Your task to perform on an android device: Open notification settings Image 0: 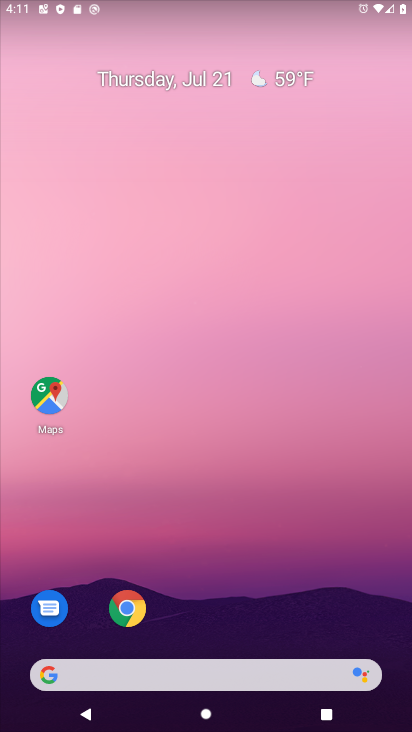
Step 0: drag from (196, 672) to (319, 4)
Your task to perform on an android device: Open notification settings Image 1: 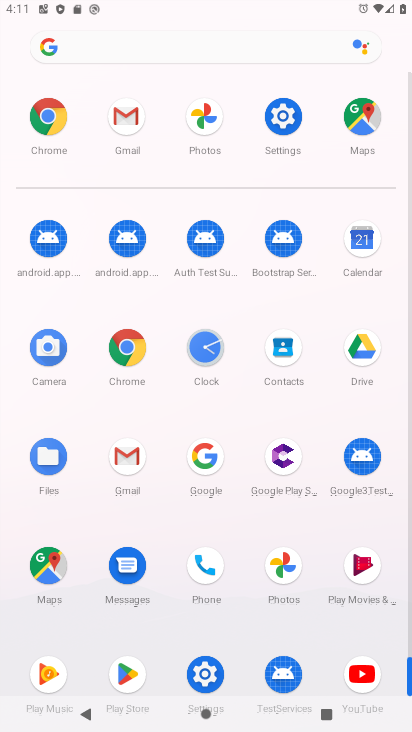
Step 1: click (277, 107)
Your task to perform on an android device: Open notification settings Image 2: 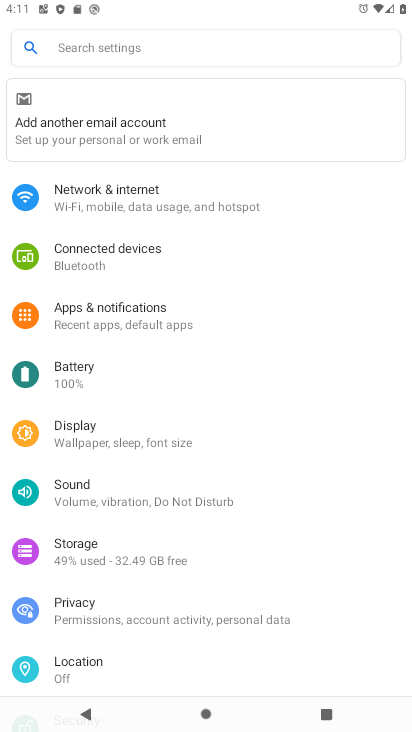
Step 2: click (131, 320)
Your task to perform on an android device: Open notification settings Image 3: 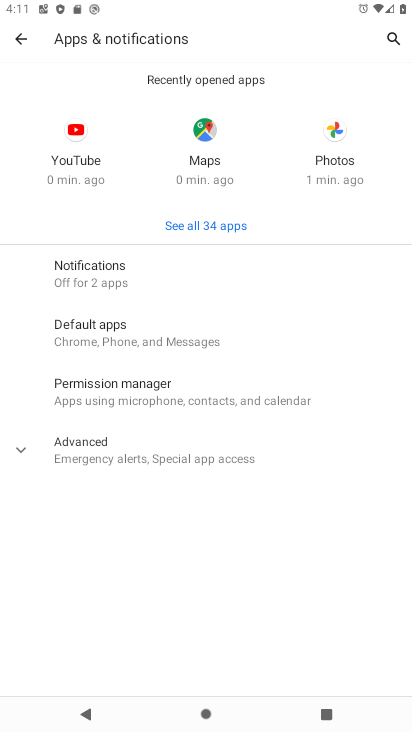
Step 3: click (114, 277)
Your task to perform on an android device: Open notification settings Image 4: 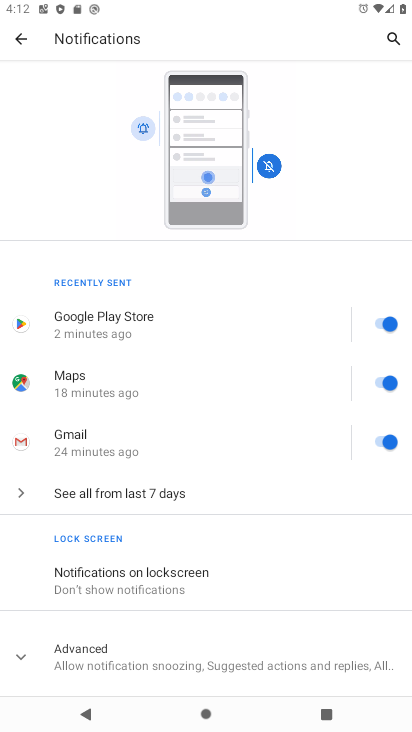
Step 4: click (379, 327)
Your task to perform on an android device: Open notification settings Image 5: 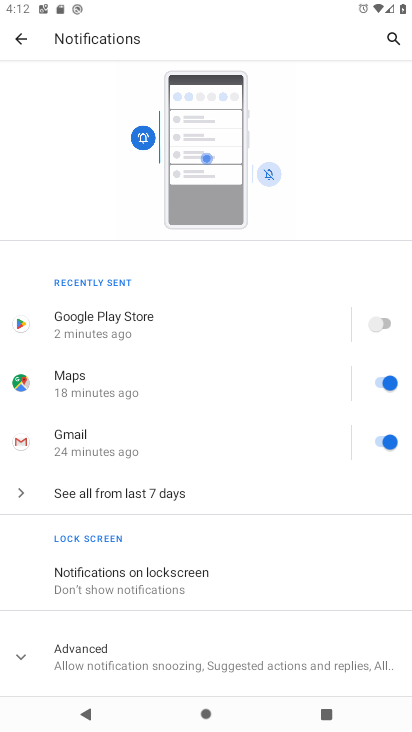
Step 5: task complete